Your task to perform on an android device: Search for Mexican restaurants on Maps Image 0: 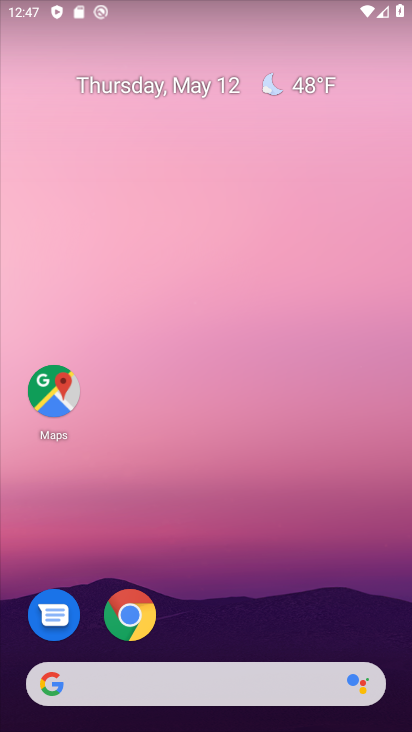
Step 0: drag from (296, 695) to (310, 39)
Your task to perform on an android device: Search for Mexican restaurants on Maps Image 1: 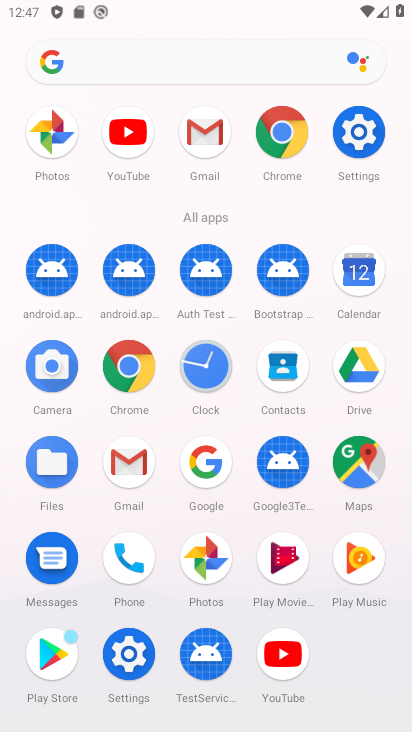
Step 1: click (354, 463)
Your task to perform on an android device: Search for Mexican restaurants on Maps Image 2: 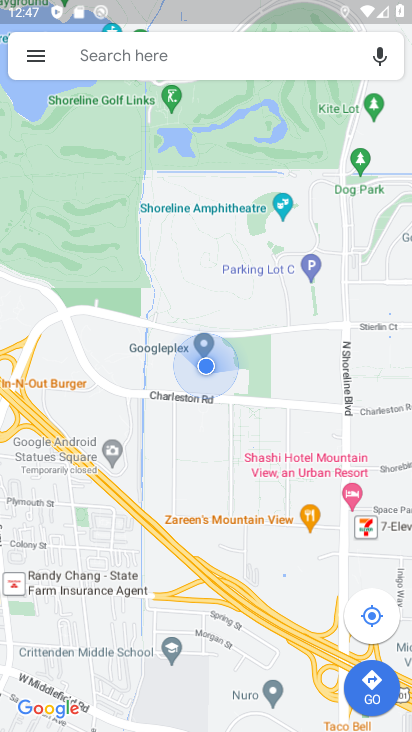
Step 2: click (154, 59)
Your task to perform on an android device: Search for Mexican restaurants on Maps Image 3: 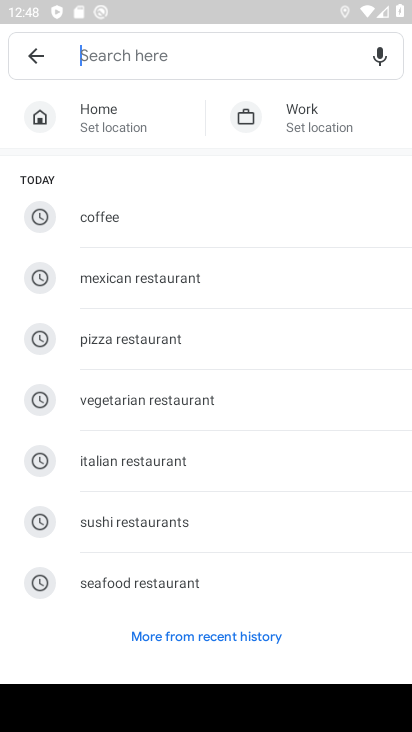
Step 3: type "mexican restaurant"
Your task to perform on an android device: Search for Mexican restaurants on Maps Image 4: 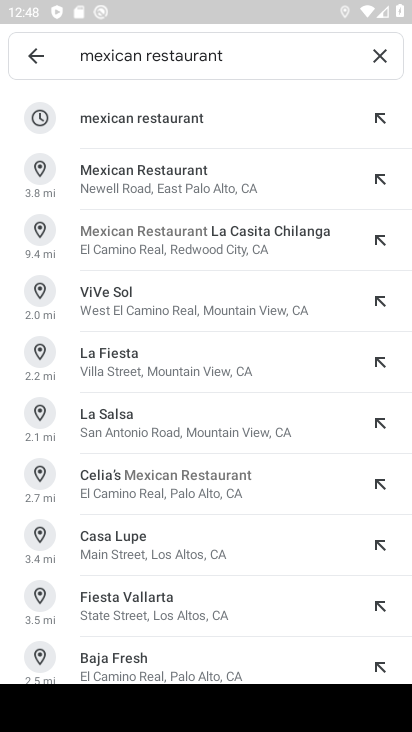
Step 4: click (194, 173)
Your task to perform on an android device: Search for Mexican restaurants on Maps Image 5: 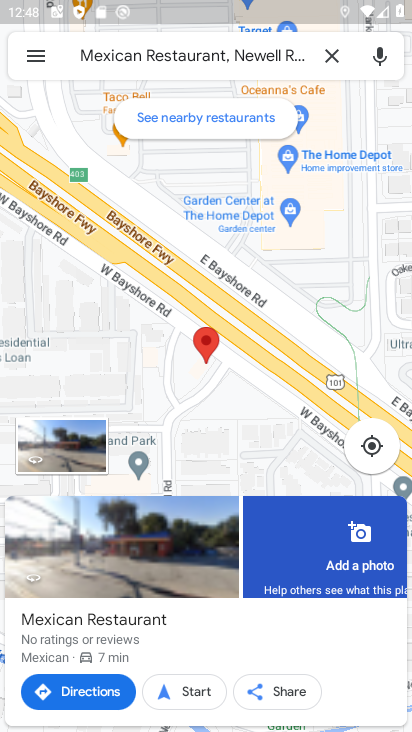
Step 5: task complete